Your task to perform on an android device: refresh tabs in the chrome app Image 0: 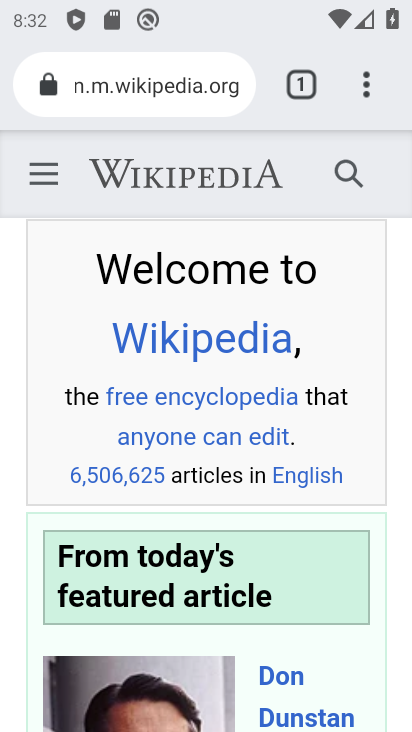
Step 0: click (367, 81)
Your task to perform on an android device: refresh tabs in the chrome app Image 1: 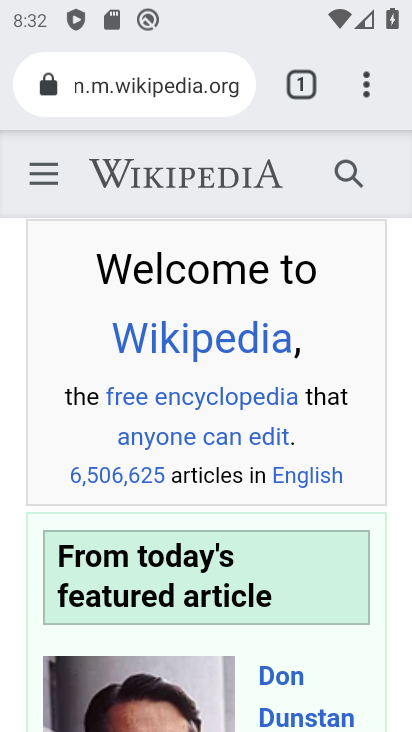
Step 1: click (367, 81)
Your task to perform on an android device: refresh tabs in the chrome app Image 2: 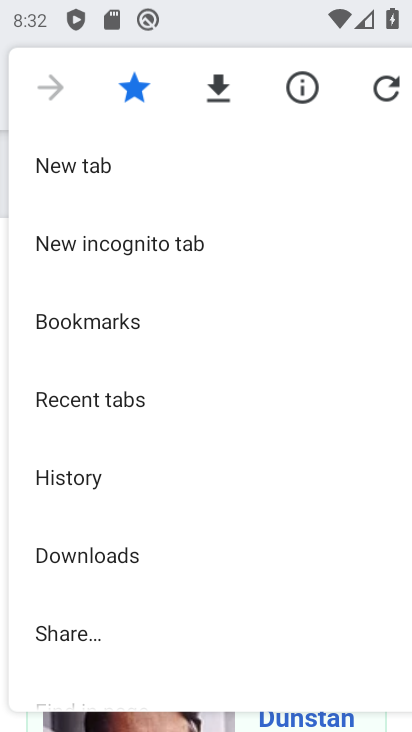
Step 2: click (386, 90)
Your task to perform on an android device: refresh tabs in the chrome app Image 3: 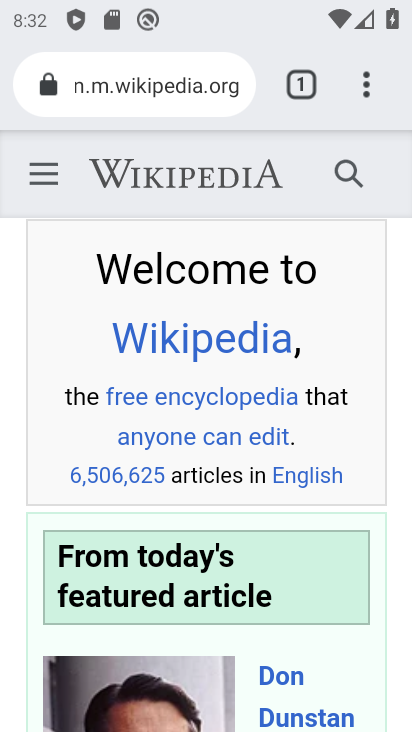
Step 3: task complete